Your task to perform on an android device: see creations saved in the google photos Image 0: 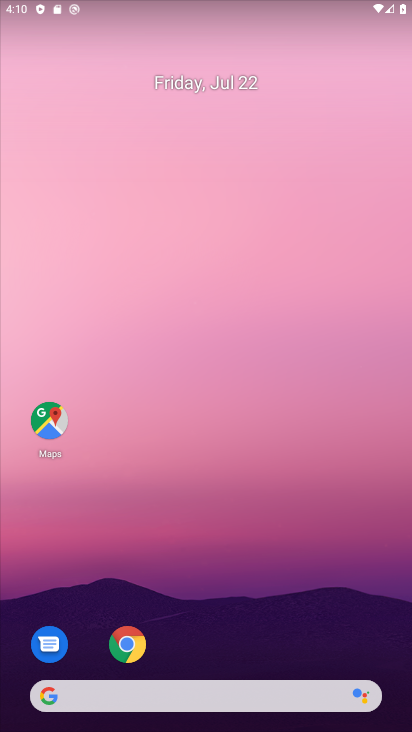
Step 0: drag from (206, 648) to (186, 145)
Your task to perform on an android device: see creations saved in the google photos Image 1: 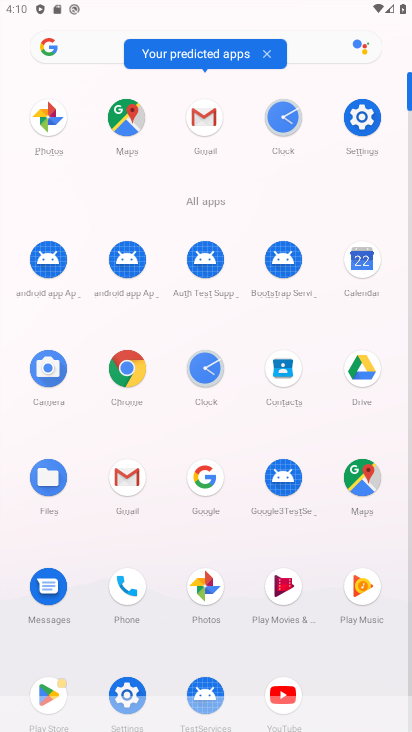
Step 1: click (209, 588)
Your task to perform on an android device: see creations saved in the google photos Image 2: 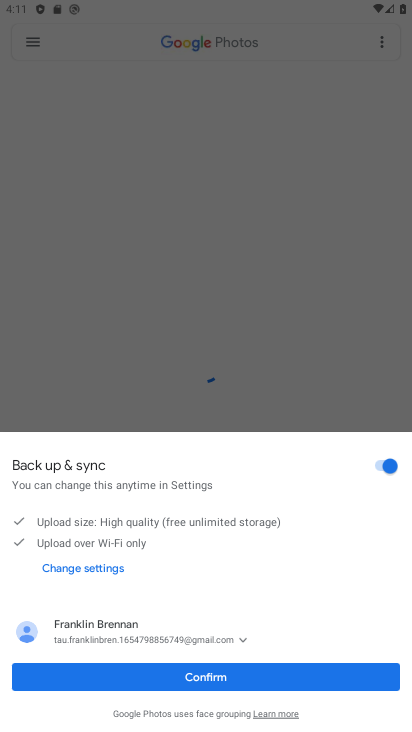
Step 2: click (208, 678)
Your task to perform on an android device: see creations saved in the google photos Image 3: 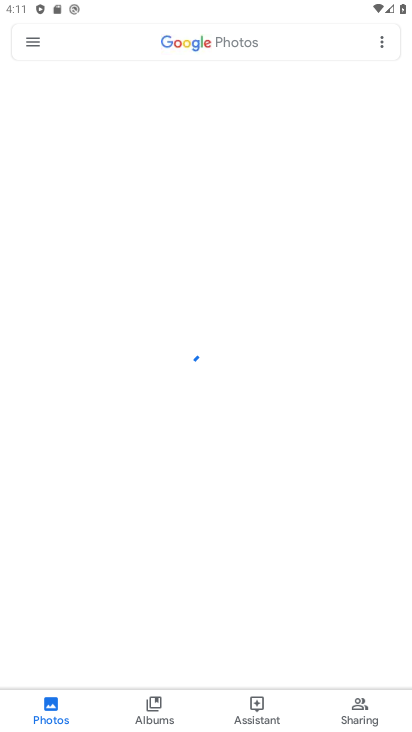
Step 3: click (208, 678)
Your task to perform on an android device: see creations saved in the google photos Image 4: 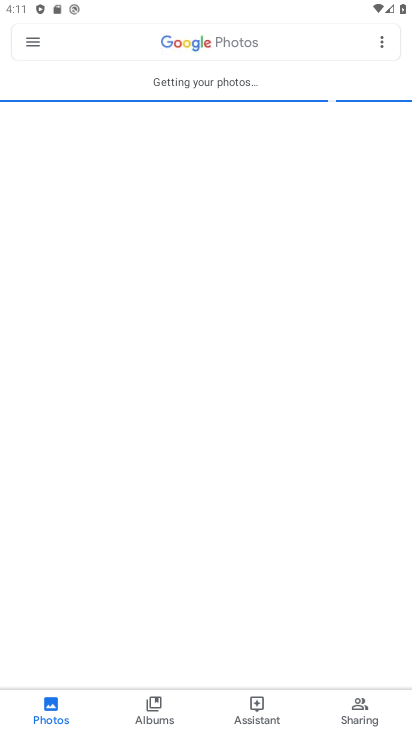
Step 4: click (126, 51)
Your task to perform on an android device: see creations saved in the google photos Image 5: 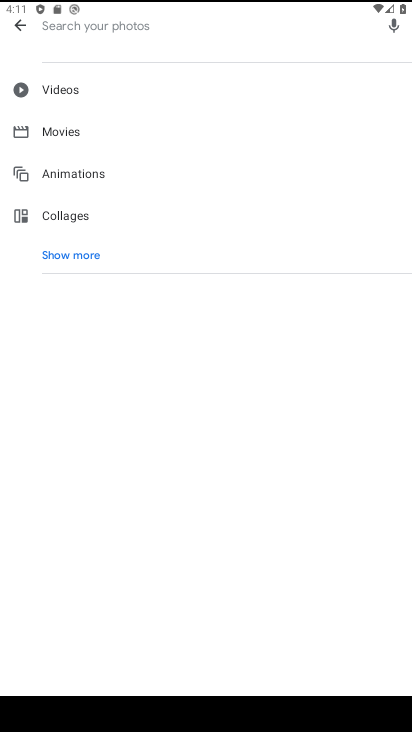
Step 5: click (75, 259)
Your task to perform on an android device: see creations saved in the google photos Image 6: 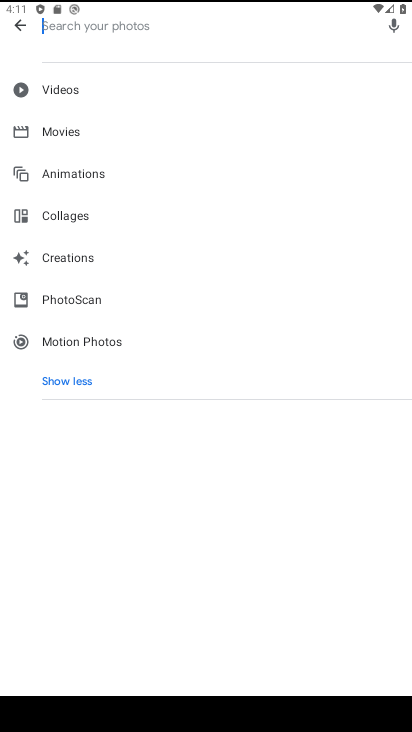
Step 6: click (74, 257)
Your task to perform on an android device: see creations saved in the google photos Image 7: 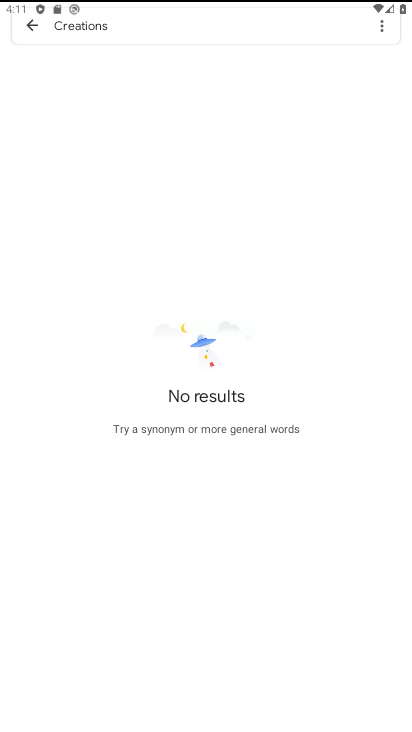
Step 7: task complete